Your task to perform on an android device: turn on location history Image 0: 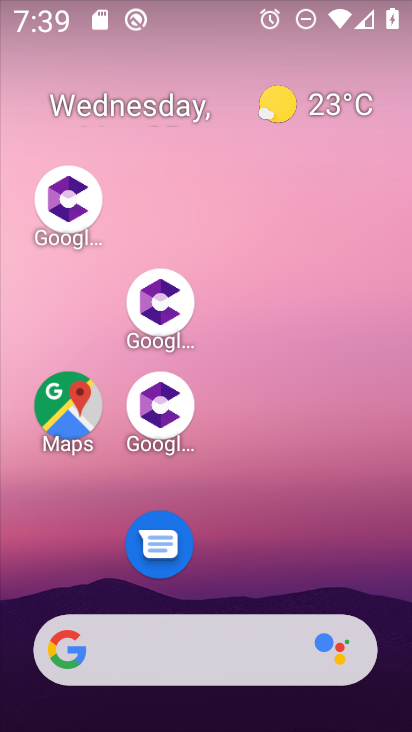
Step 0: click (65, 408)
Your task to perform on an android device: turn on location history Image 1: 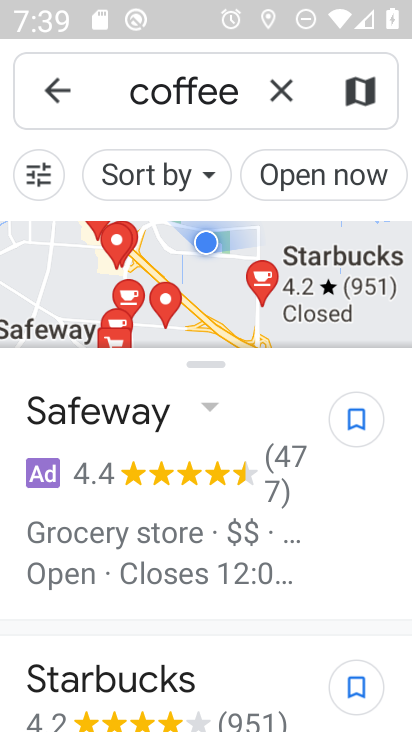
Step 1: click (280, 86)
Your task to perform on an android device: turn on location history Image 2: 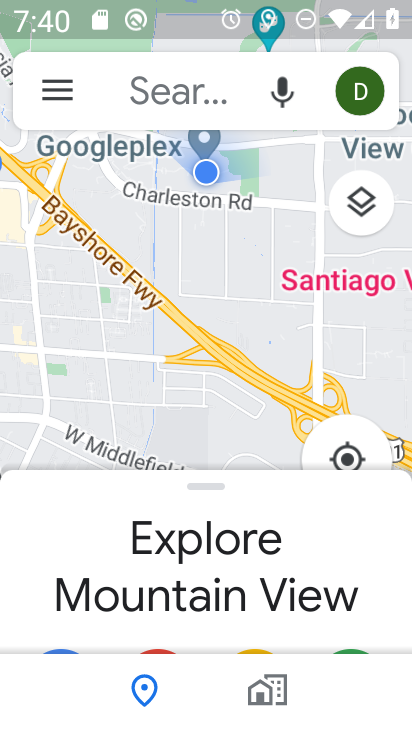
Step 2: click (57, 81)
Your task to perform on an android device: turn on location history Image 3: 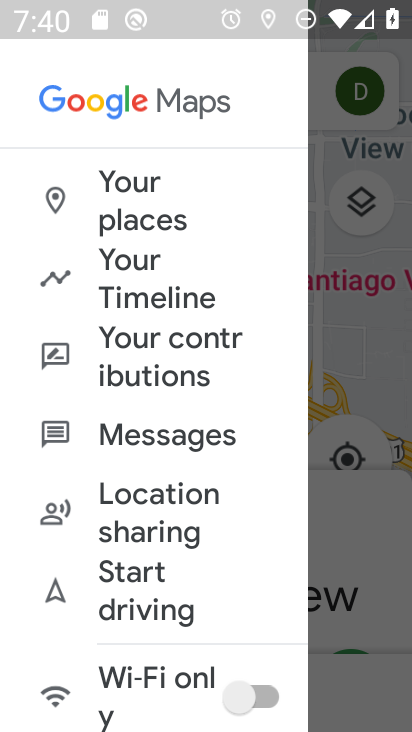
Step 3: drag from (202, 579) to (170, 241)
Your task to perform on an android device: turn on location history Image 4: 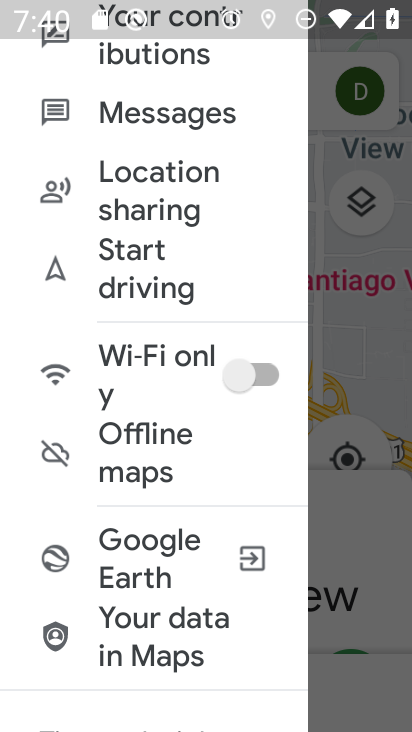
Step 4: drag from (190, 238) to (276, 632)
Your task to perform on an android device: turn on location history Image 5: 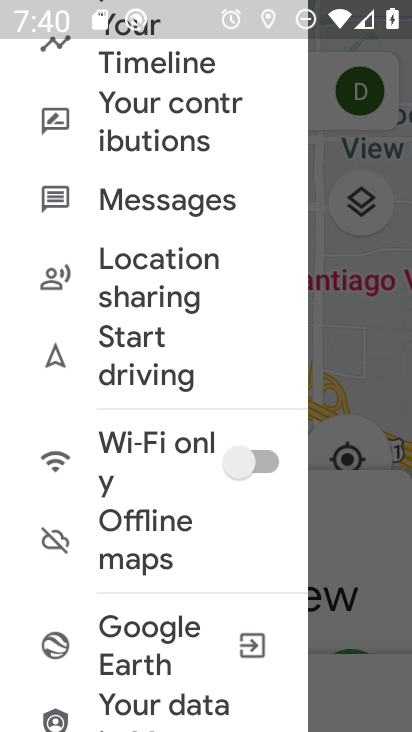
Step 5: drag from (216, 284) to (269, 606)
Your task to perform on an android device: turn on location history Image 6: 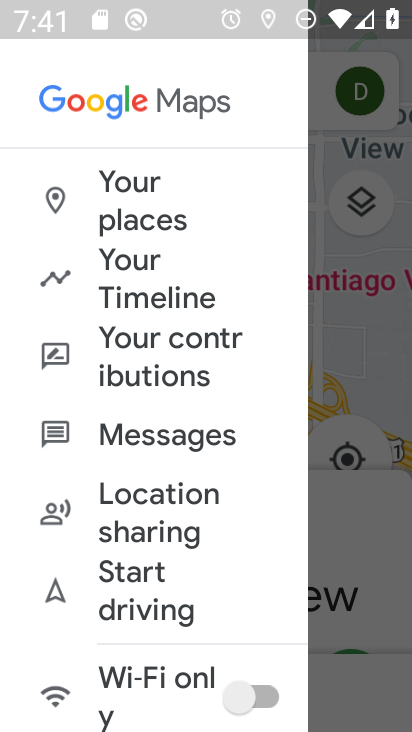
Step 6: click (159, 283)
Your task to perform on an android device: turn on location history Image 7: 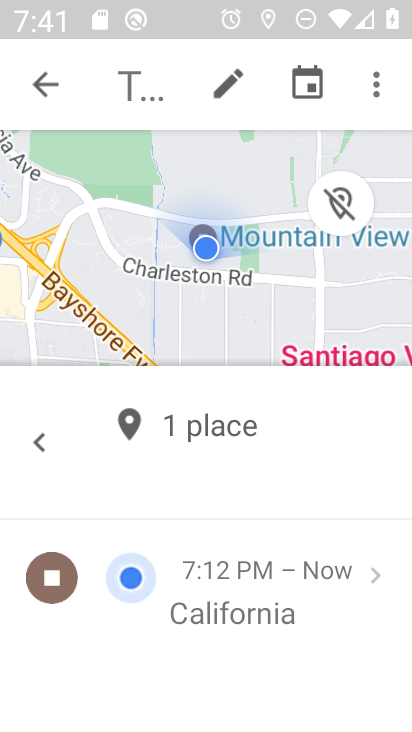
Step 7: click (373, 82)
Your task to perform on an android device: turn on location history Image 8: 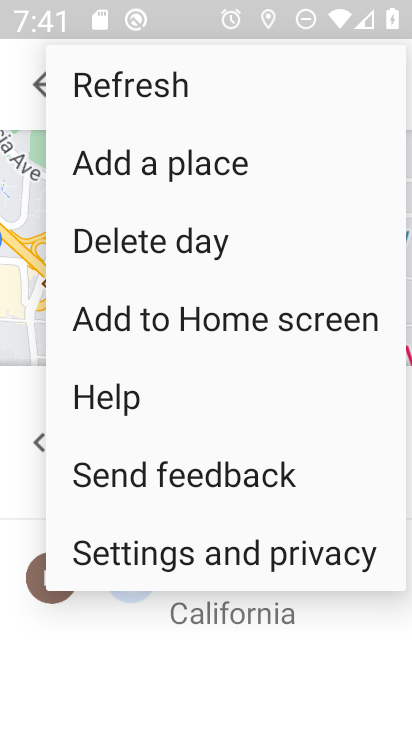
Step 8: click (204, 561)
Your task to perform on an android device: turn on location history Image 9: 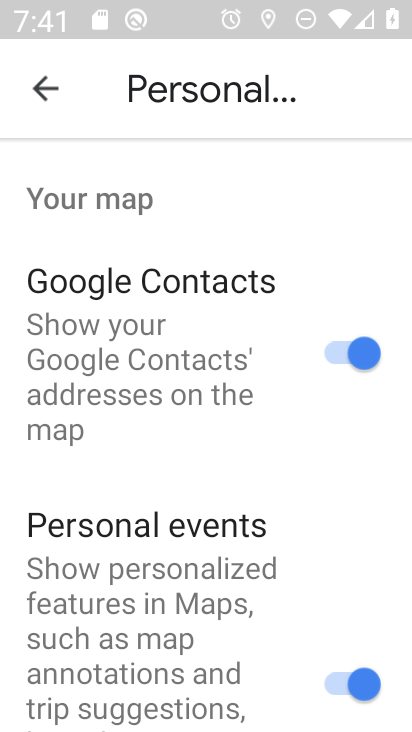
Step 9: drag from (301, 481) to (253, 198)
Your task to perform on an android device: turn on location history Image 10: 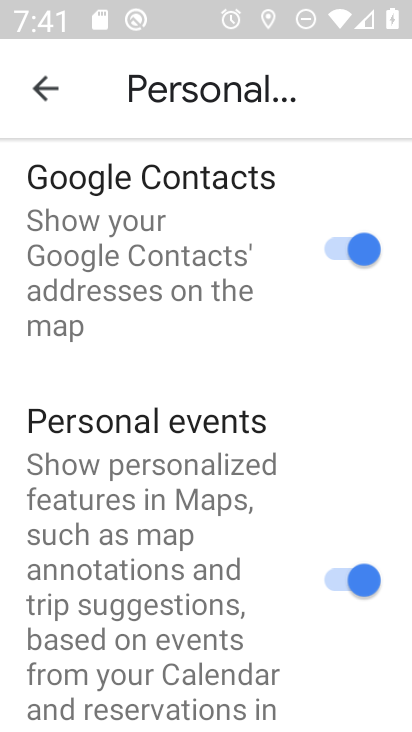
Step 10: drag from (260, 522) to (243, 192)
Your task to perform on an android device: turn on location history Image 11: 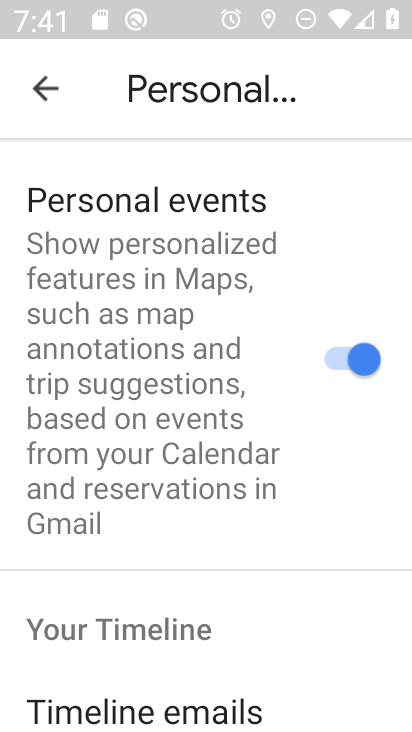
Step 11: drag from (247, 555) to (111, 143)
Your task to perform on an android device: turn on location history Image 12: 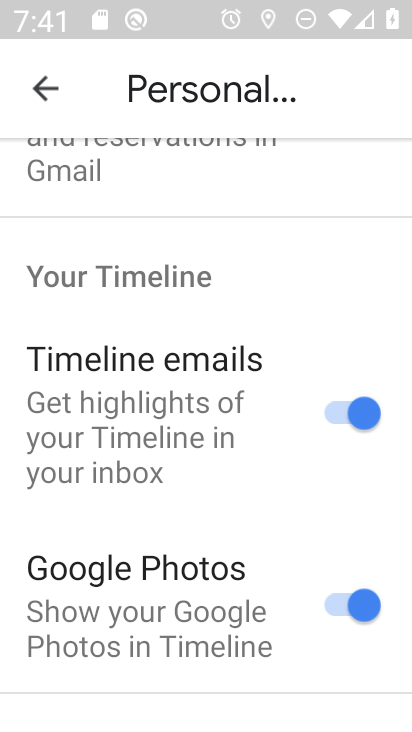
Step 12: drag from (242, 555) to (217, 311)
Your task to perform on an android device: turn on location history Image 13: 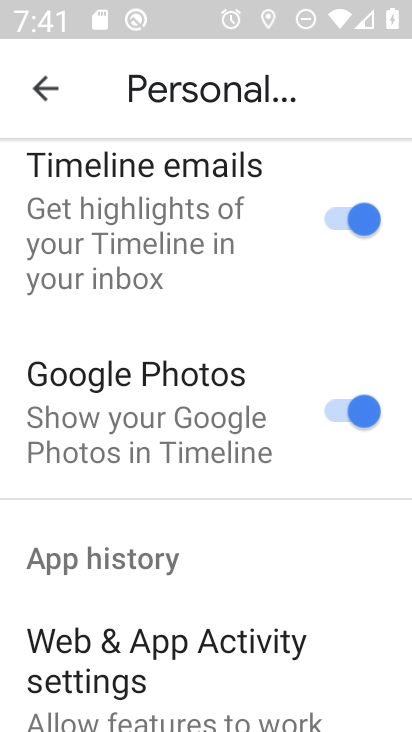
Step 13: drag from (228, 546) to (157, 170)
Your task to perform on an android device: turn on location history Image 14: 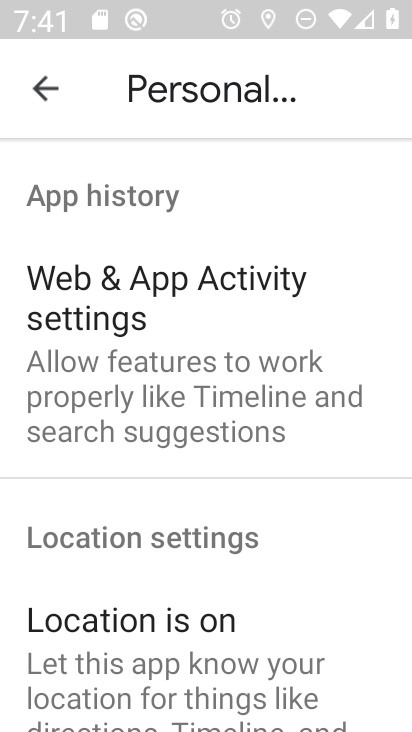
Step 14: drag from (254, 547) to (237, 282)
Your task to perform on an android device: turn on location history Image 15: 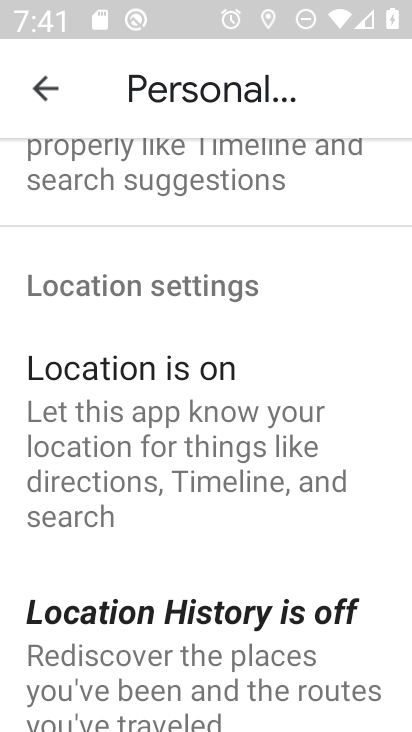
Step 15: click (198, 605)
Your task to perform on an android device: turn on location history Image 16: 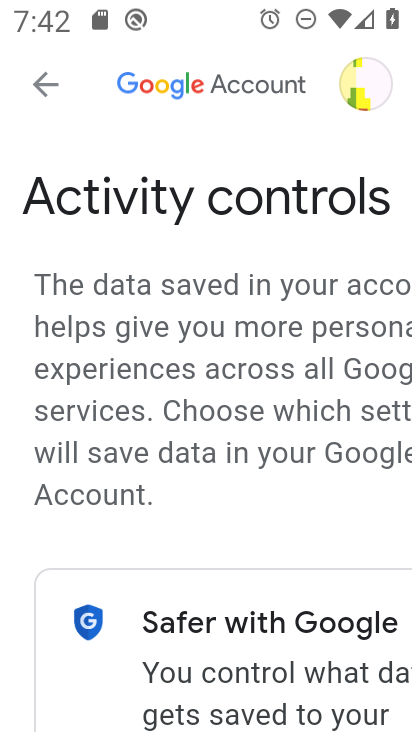
Step 16: task complete